Your task to perform on an android device: Open battery settings Image 0: 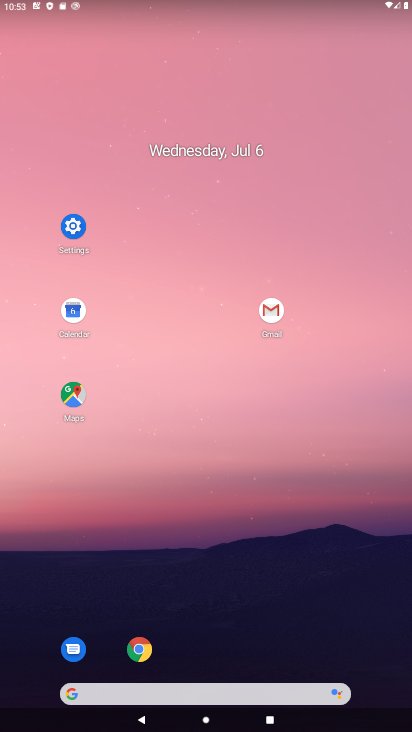
Step 0: click (70, 221)
Your task to perform on an android device: Open battery settings Image 1: 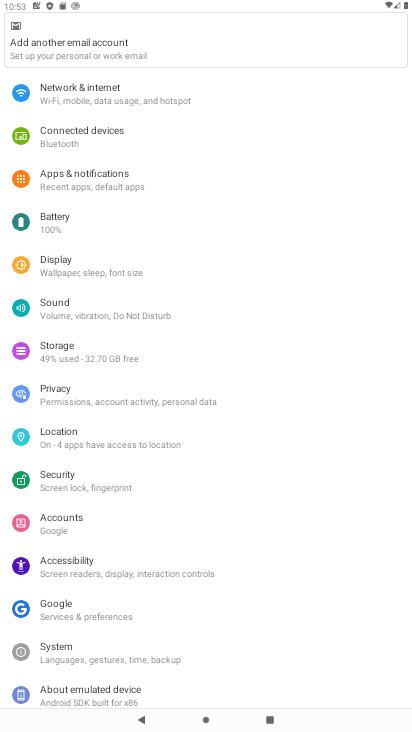
Step 1: click (50, 222)
Your task to perform on an android device: Open battery settings Image 2: 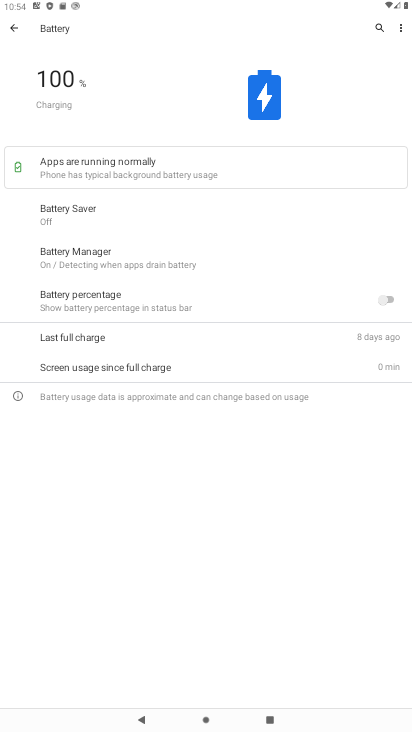
Step 2: task complete